Your task to perform on an android device: open chrome and create a bookmark for the current page Image 0: 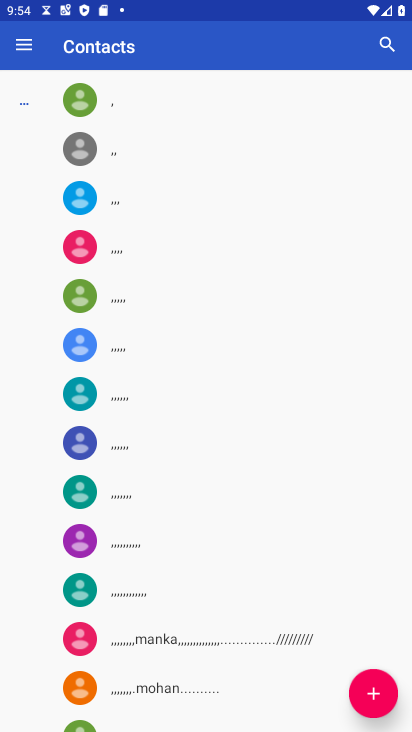
Step 0: press home button
Your task to perform on an android device: open chrome and create a bookmark for the current page Image 1: 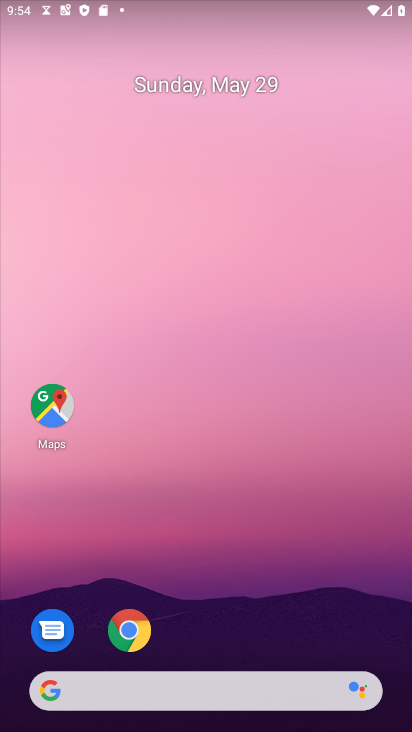
Step 1: click (128, 645)
Your task to perform on an android device: open chrome and create a bookmark for the current page Image 2: 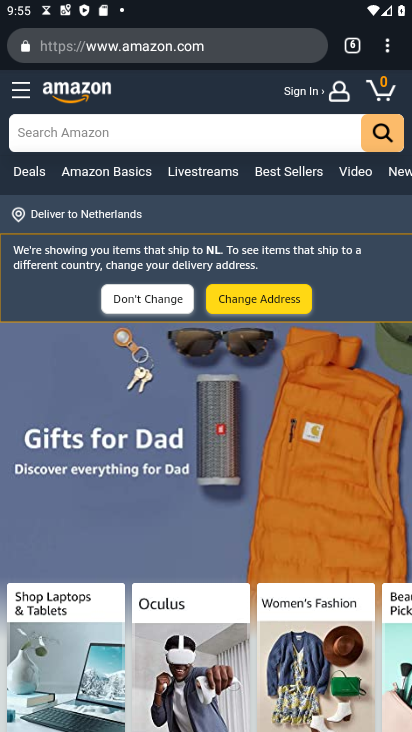
Step 2: click (394, 47)
Your task to perform on an android device: open chrome and create a bookmark for the current page Image 3: 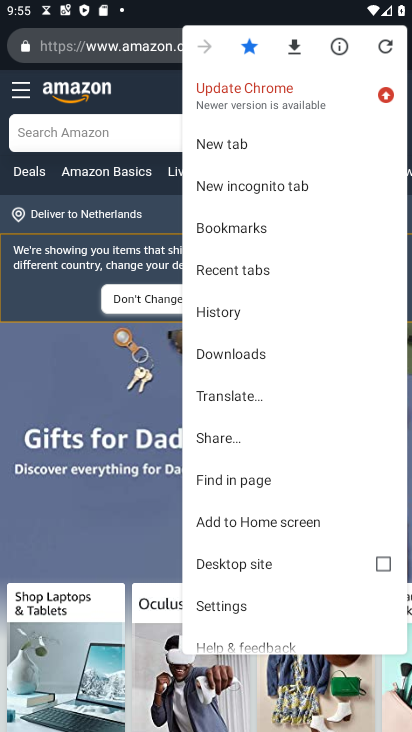
Step 3: task complete